Your task to perform on an android device: Open calendar and show me the first week of next month Image 0: 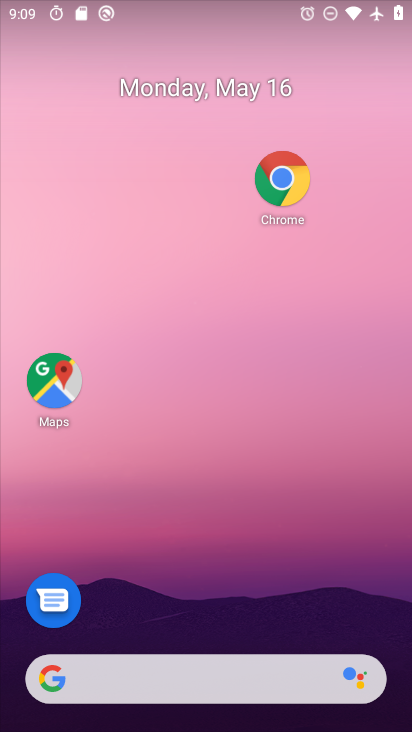
Step 0: drag from (187, 677) to (217, 181)
Your task to perform on an android device: Open calendar and show me the first week of next month Image 1: 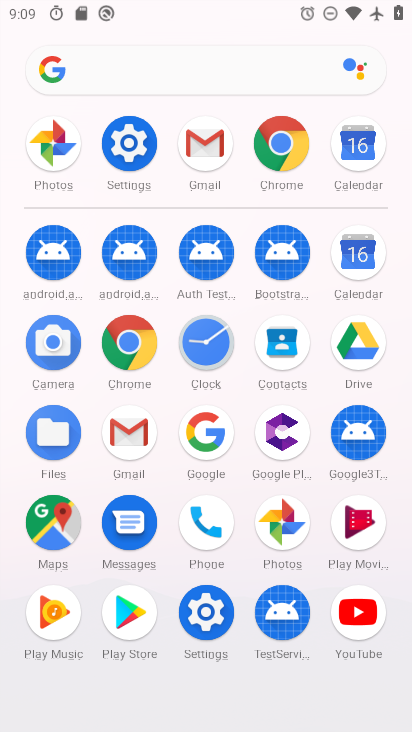
Step 1: click (365, 257)
Your task to perform on an android device: Open calendar and show me the first week of next month Image 2: 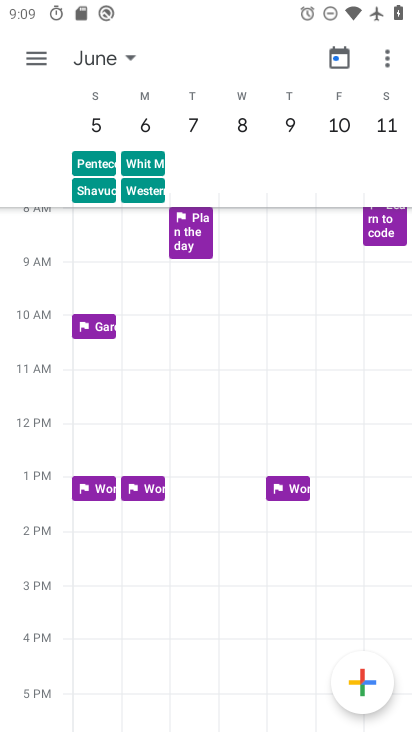
Step 2: click (99, 59)
Your task to perform on an android device: Open calendar and show me the first week of next month Image 3: 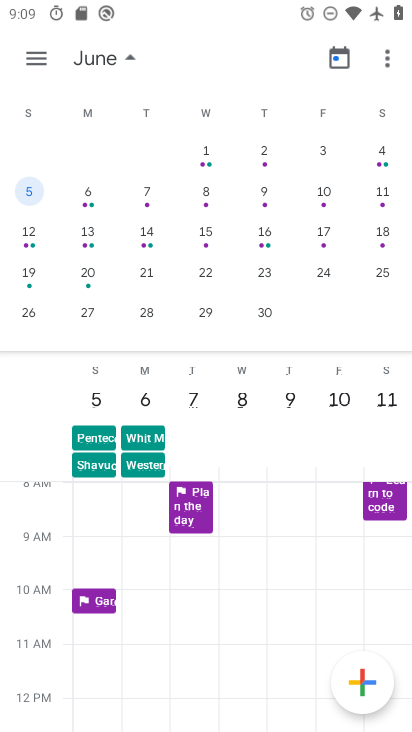
Step 3: click (203, 152)
Your task to perform on an android device: Open calendar and show me the first week of next month Image 4: 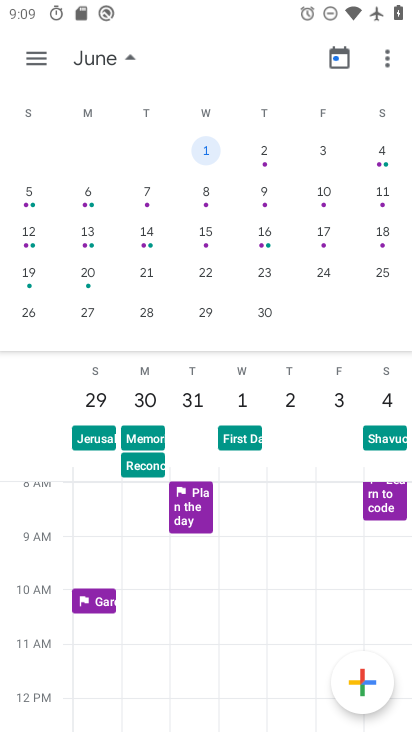
Step 4: click (42, 60)
Your task to perform on an android device: Open calendar and show me the first week of next month Image 5: 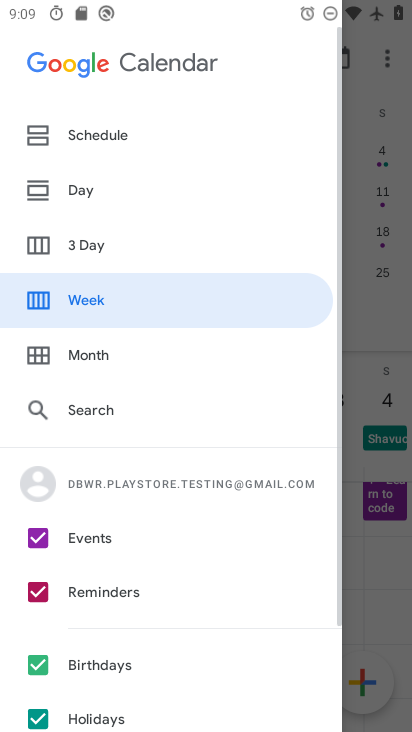
Step 5: click (101, 292)
Your task to perform on an android device: Open calendar and show me the first week of next month Image 6: 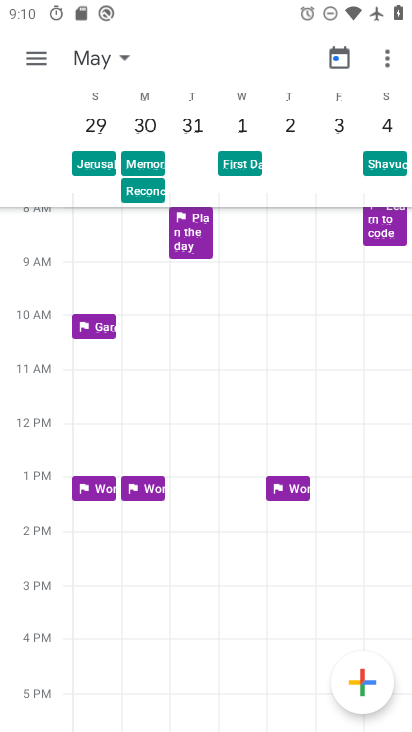
Step 6: task complete